Your task to perform on an android device: Open maps Image 0: 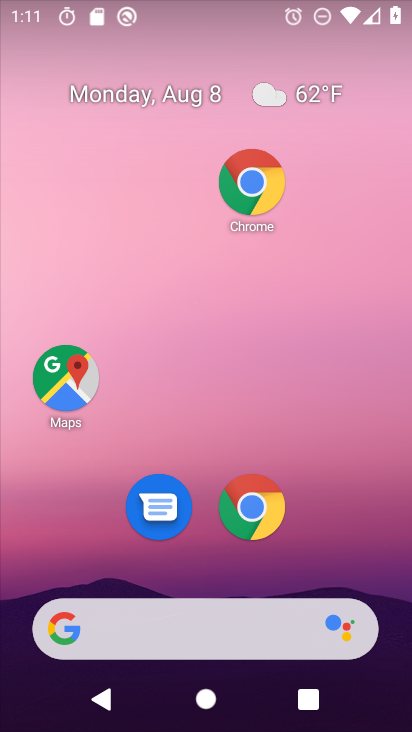
Step 0: drag from (338, 567) to (343, 79)
Your task to perform on an android device: Open maps Image 1: 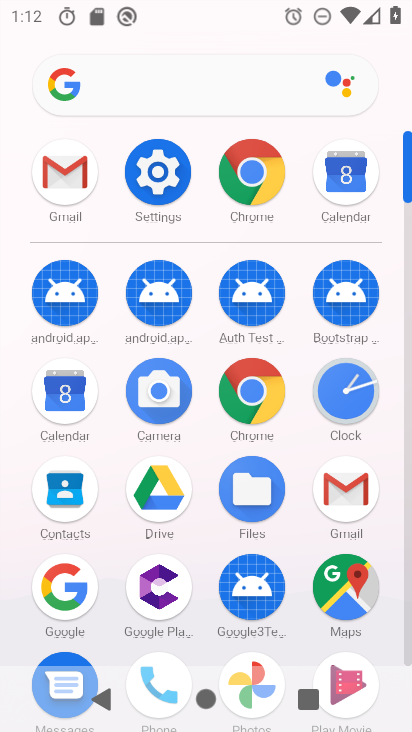
Step 1: click (363, 597)
Your task to perform on an android device: Open maps Image 2: 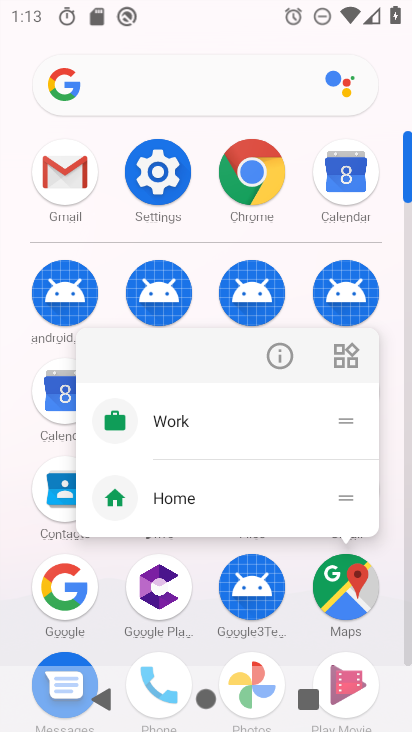
Step 2: click (347, 585)
Your task to perform on an android device: Open maps Image 3: 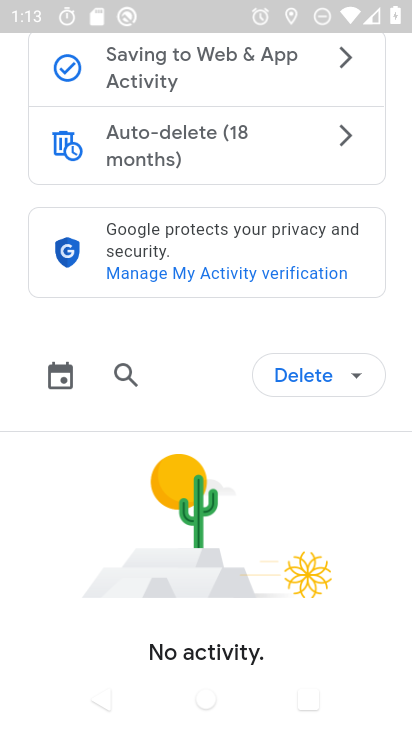
Step 3: task complete